Your task to perform on an android device: Go to notification settings Image 0: 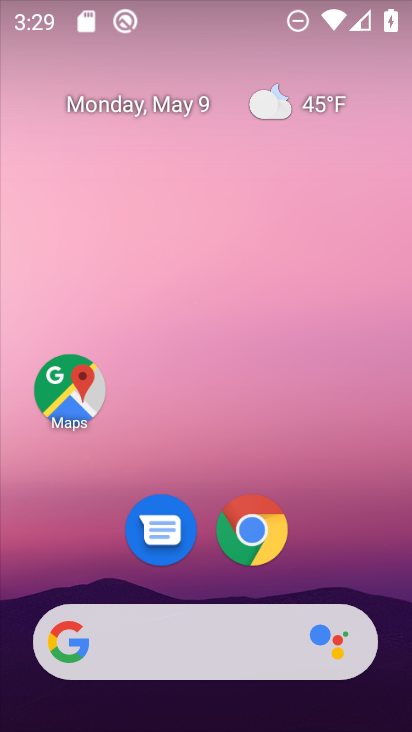
Step 0: drag from (343, 575) to (190, 13)
Your task to perform on an android device: Go to notification settings Image 1: 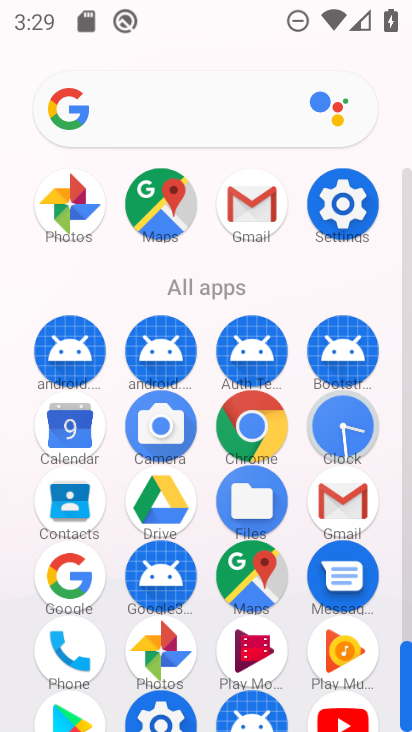
Step 1: click (346, 202)
Your task to perform on an android device: Go to notification settings Image 2: 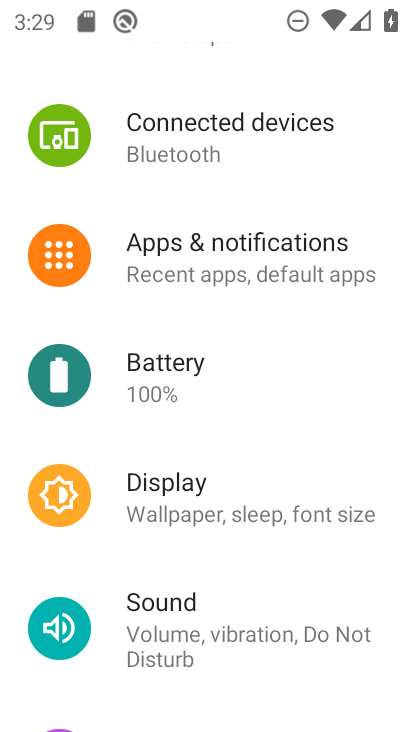
Step 2: click (216, 258)
Your task to perform on an android device: Go to notification settings Image 3: 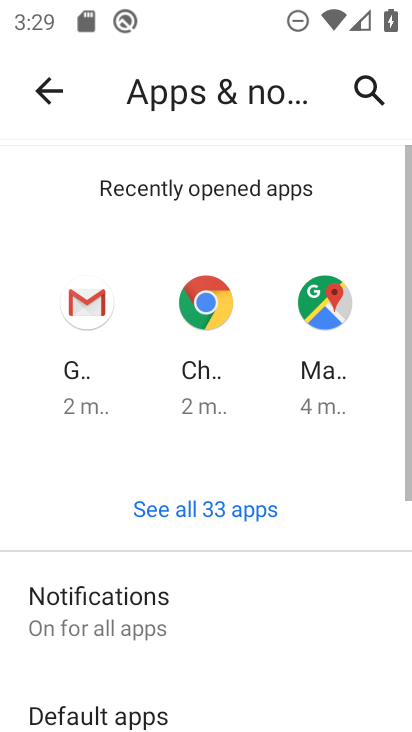
Step 3: click (81, 592)
Your task to perform on an android device: Go to notification settings Image 4: 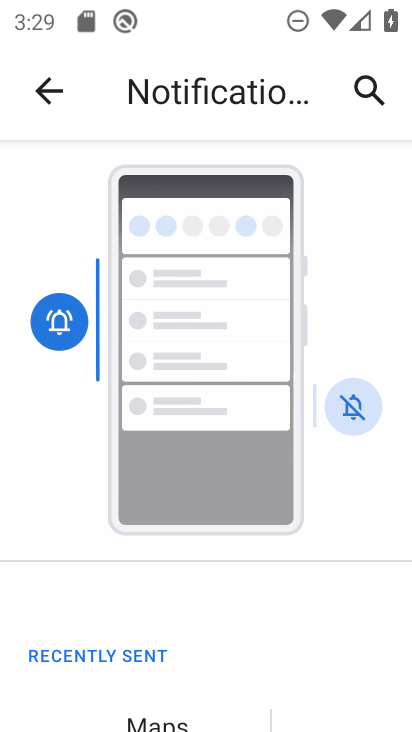
Step 4: task complete